Your task to perform on an android device: Open maps Image 0: 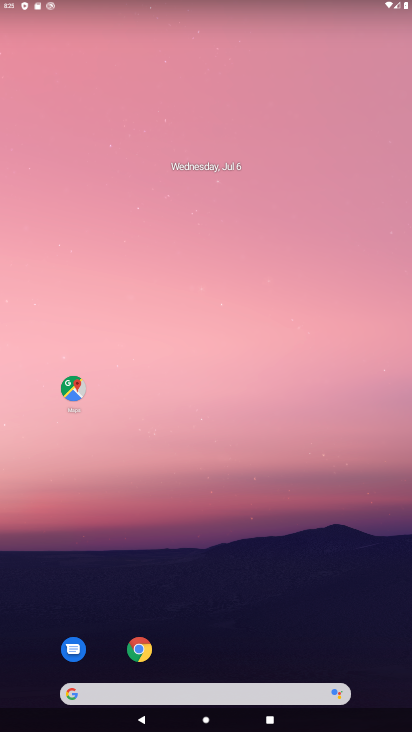
Step 0: drag from (209, 646) to (234, 2)
Your task to perform on an android device: Open maps Image 1: 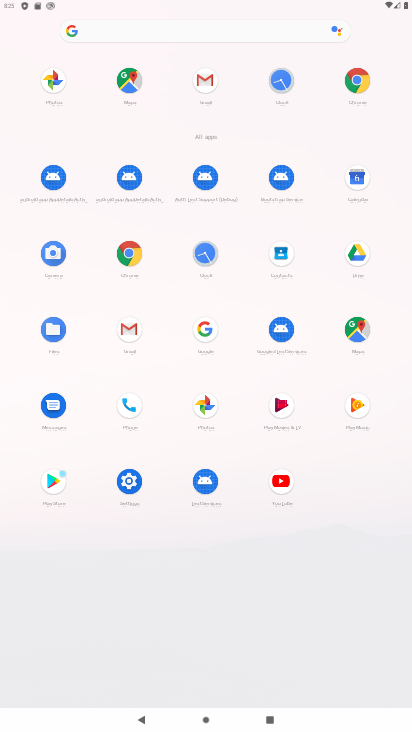
Step 1: click (353, 352)
Your task to perform on an android device: Open maps Image 2: 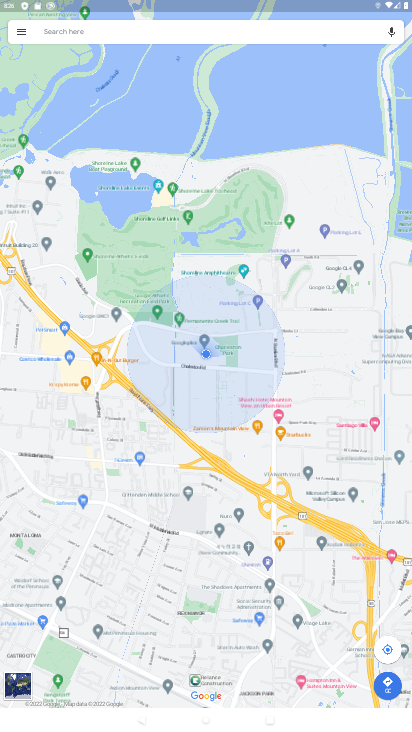
Step 2: task complete